Your task to perform on an android device: Open display settings Image 0: 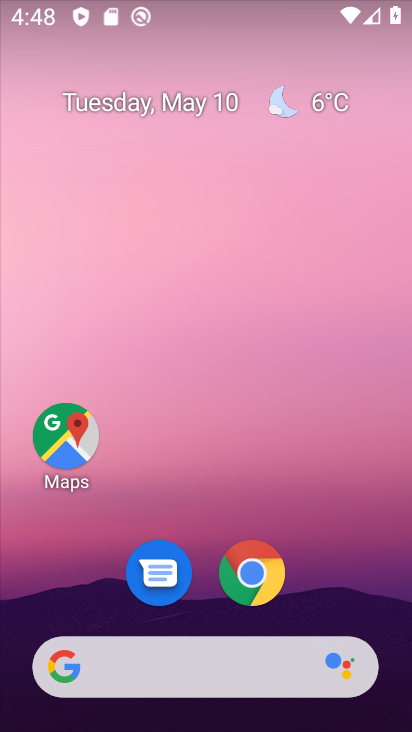
Step 0: drag from (180, 647) to (301, 86)
Your task to perform on an android device: Open display settings Image 1: 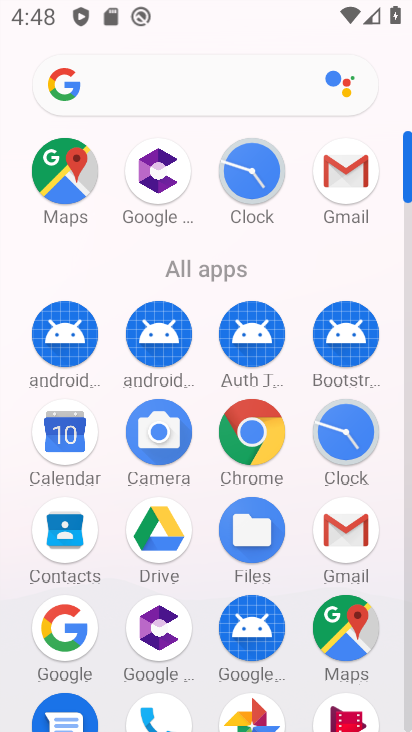
Step 1: drag from (170, 588) to (214, 367)
Your task to perform on an android device: Open display settings Image 2: 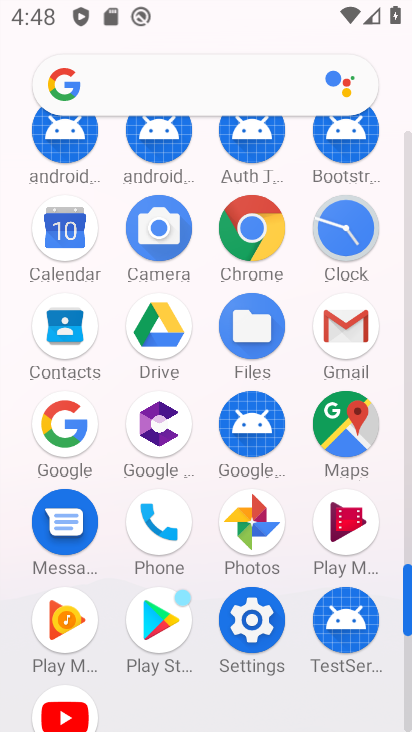
Step 2: click (241, 640)
Your task to perform on an android device: Open display settings Image 3: 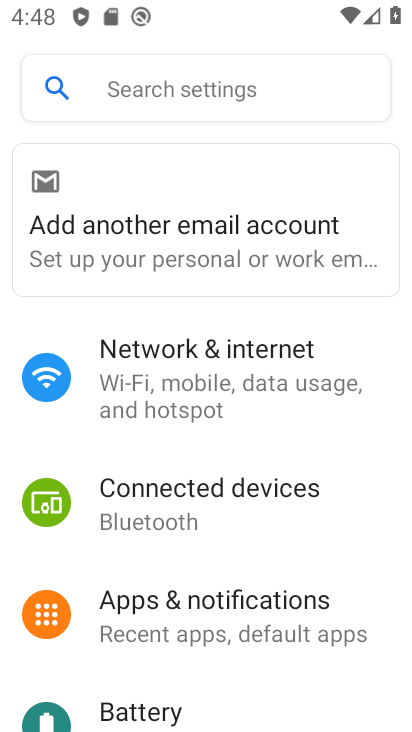
Step 3: drag from (225, 694) to (327, 380)
Your task to perform on an android device: Open display settings Image 4: 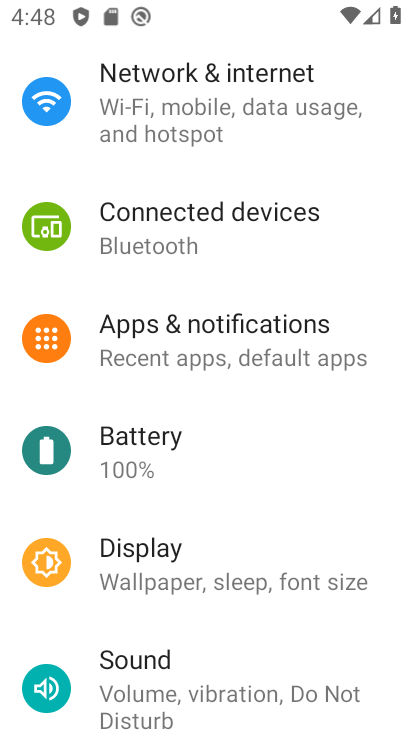
Step 4: click (227, 577)
Your task to perform on an android device: Open display settings Image 5: 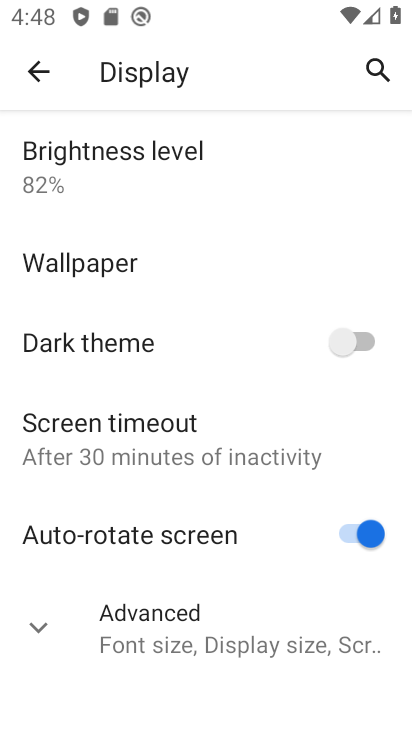
Step 5: task complete